Your task to perform on an android device: Open the web browser Image 0: 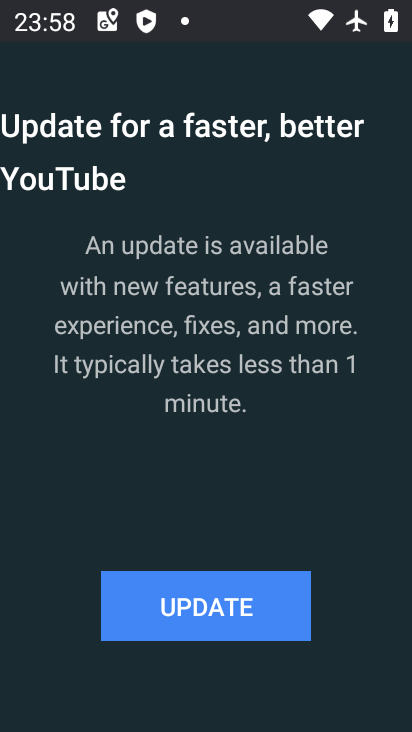
Step 0: press home button
Your task to perform on an android device: Open the web browser Image 1: 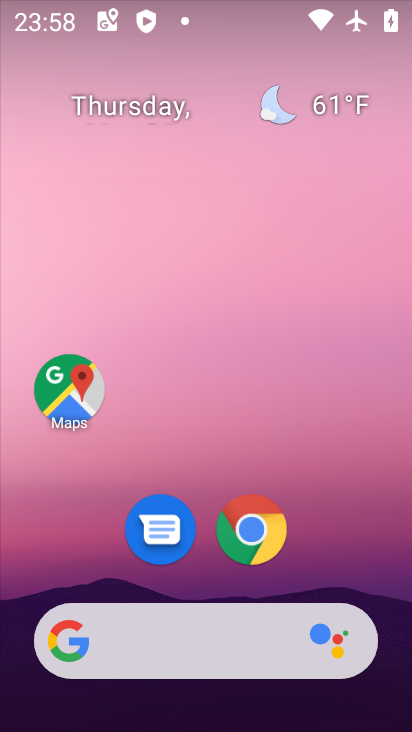
Step 1: click (246, 543)
Your task to perform on an android device: Open the web browser Image 2: 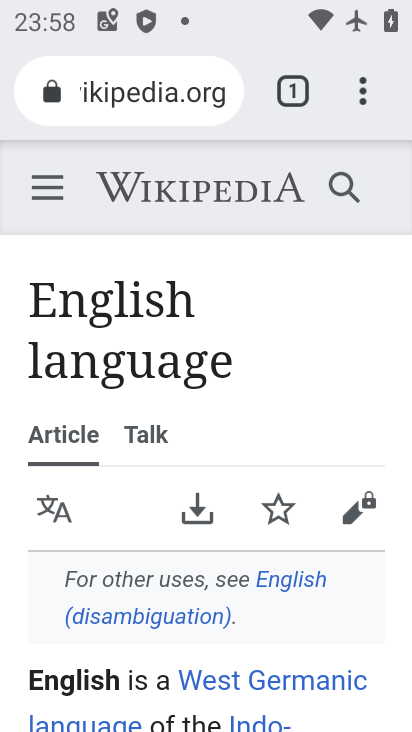
Step 2: task complete